Your task to perform on an android device: Open settings on Google Maps Image 0: 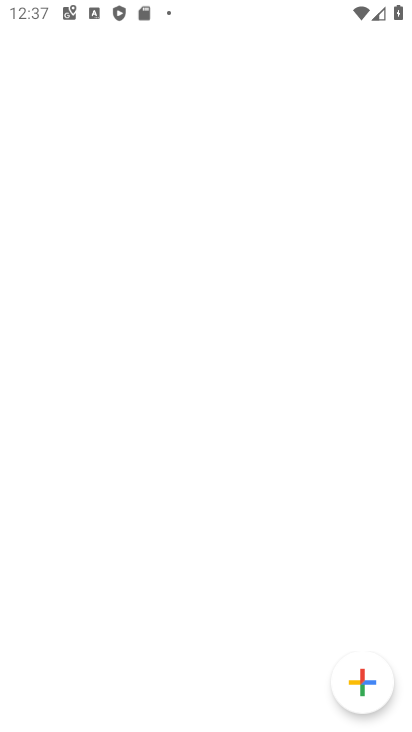
Step 0: drag from (224, 460) to (216, 230)
Your task to perform on an android device: Open settings on Google Maps Image 1: 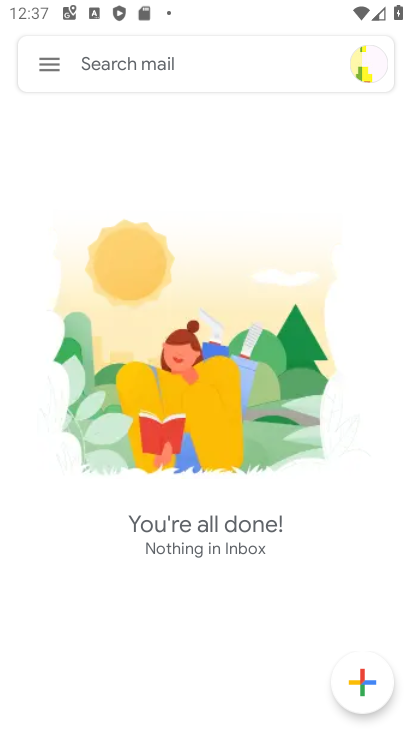
Step 1: press home button
Your task to perform on an android device: Open settings on Google Maps Image 2: 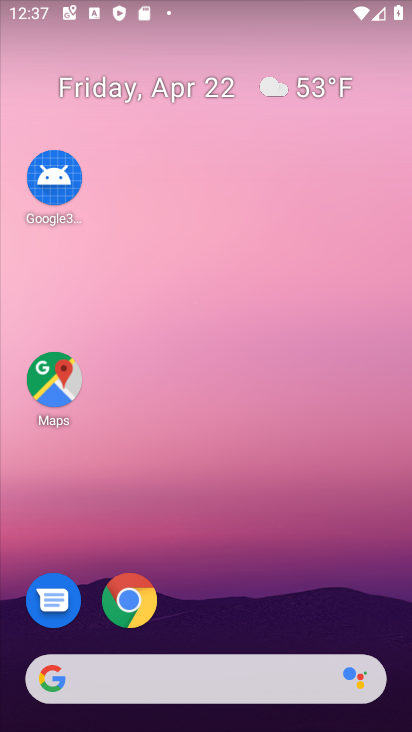
Step 2: click (52, 373)
Your task to perform on an android device: Open settings on Google Maps Image 3: 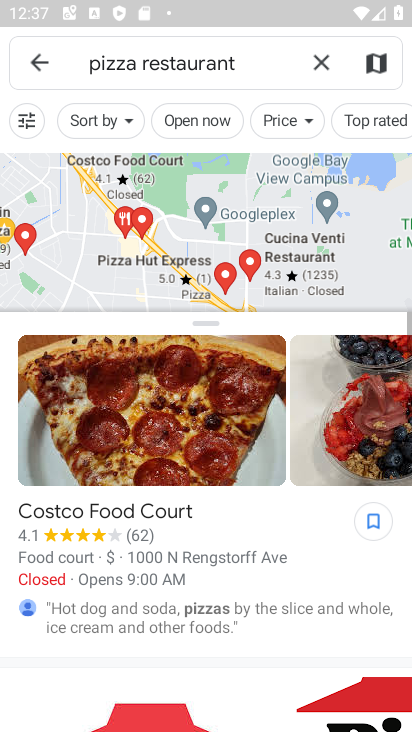
Step 3: click (31, 64)
Your task to perform on an android device: Open settings on Google Maps Image 4: 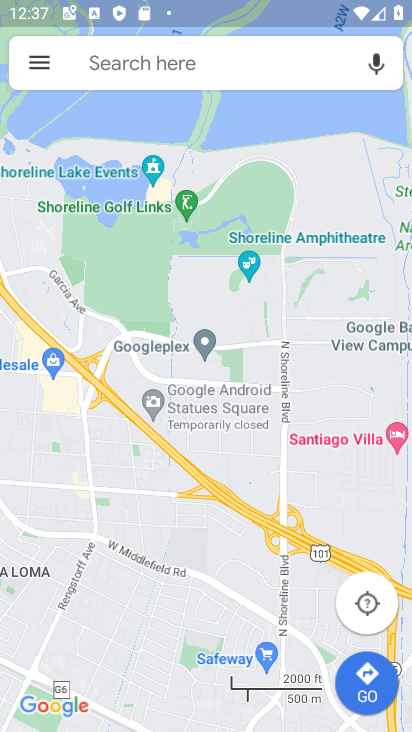
Step 4: click (31, 64)
Your task to perform on an android device: Open settings on Google Maps Image 5: 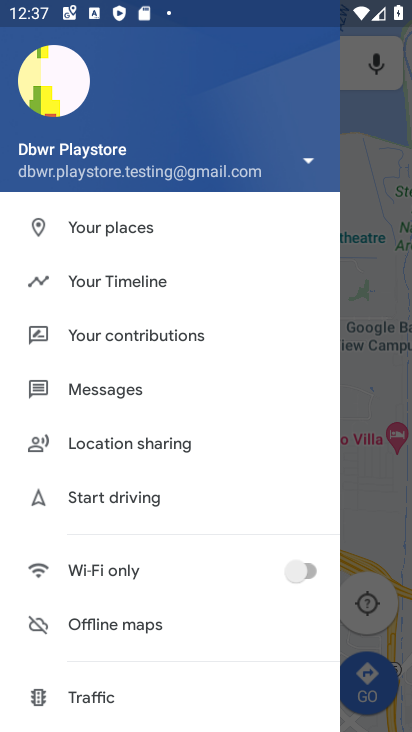
Step 5: drag from (149, 681) to (177, 342)
Your task to perform on an android device: Open settings on Google Maps Image 6: 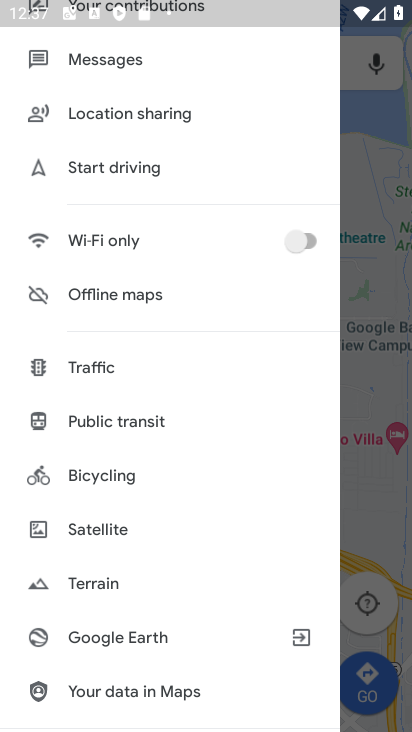
Step 6: drag from (182, 592) to (157, 248)
Your task to perform on an android device: Open settings on Google Maps Image 7: 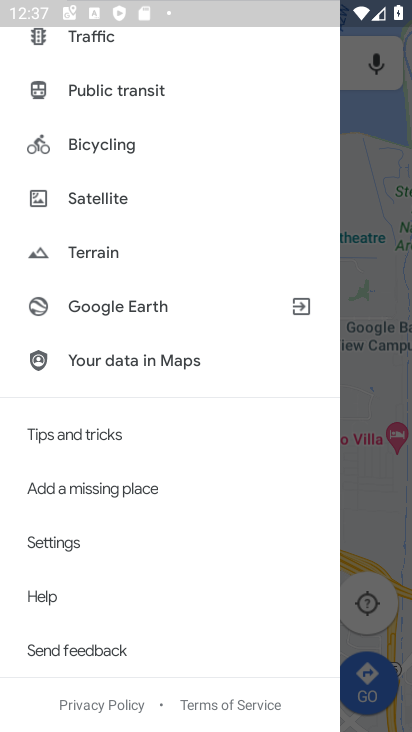
Step 7: click (64, 543)
Your task to perform on an android device: Open settings on Google Maps Image 8: 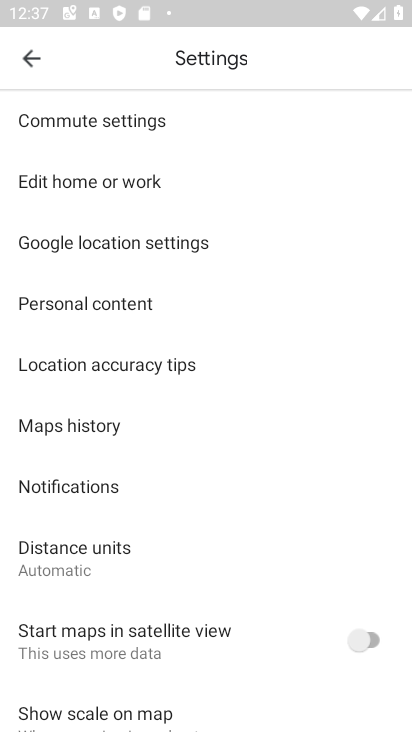
Step 8: task complete